Your task to perform on an android device: change text size in settings app Image 0: 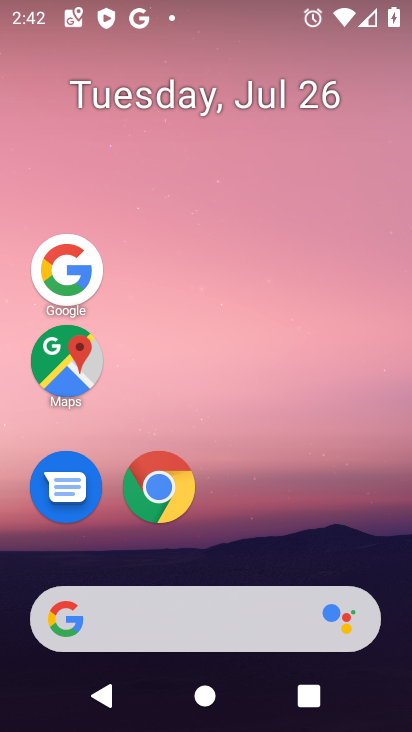
Step 0: drag from (203, 645) to (202, 119)
Your task to perform on an android device: change text size in settings app Image 1: 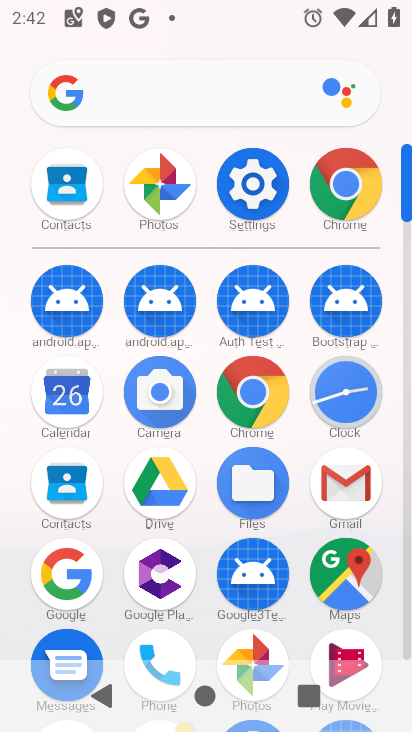
Step 1: click (253, 195)
Your task to perform on an android device: change text size in settings app Image 2: 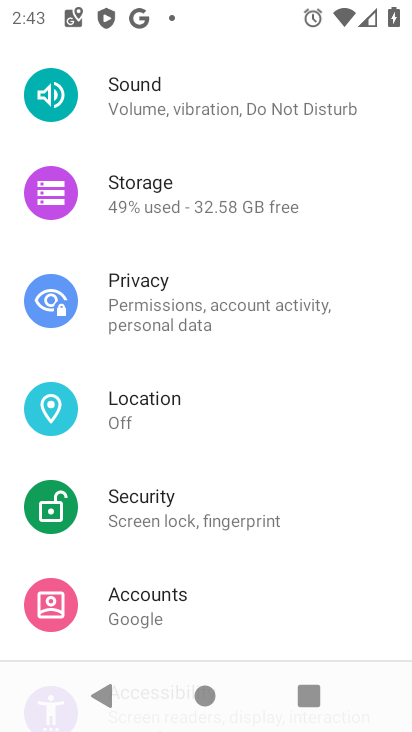
Step 2: drag from (181, 235) to (206, 523)
Your task to perform on an android device: change text size in settings app Image 3: 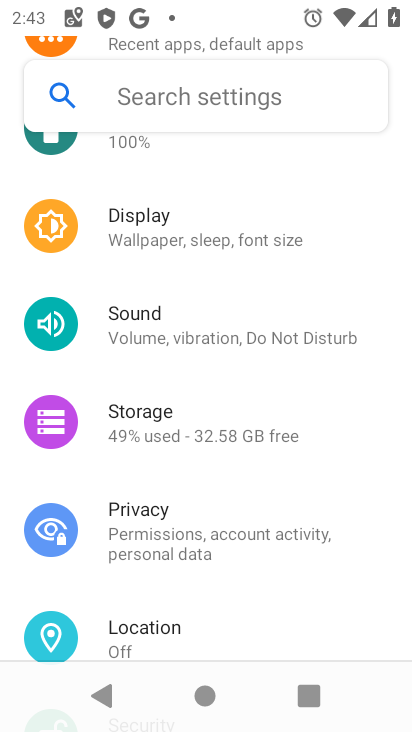
Step 3: drag from (168, 302) to (168, 670)
Your task to perform on an android device: change text size in settings app Image 4: 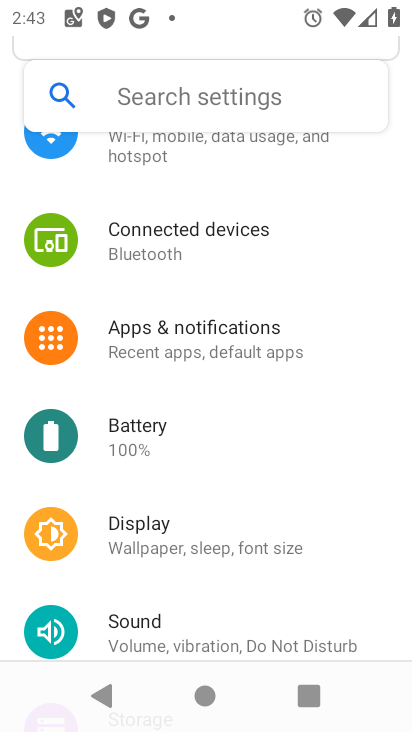
Step 4: click (158, 549)
Your task to perform on an android device: change text size in settings app Image 5: 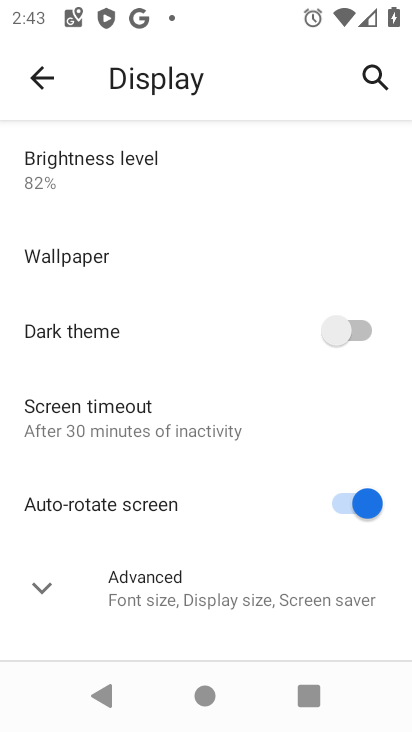
Step 5: click (125, 564)
Your task to perform on an android device: change text size in settings app Image 6: 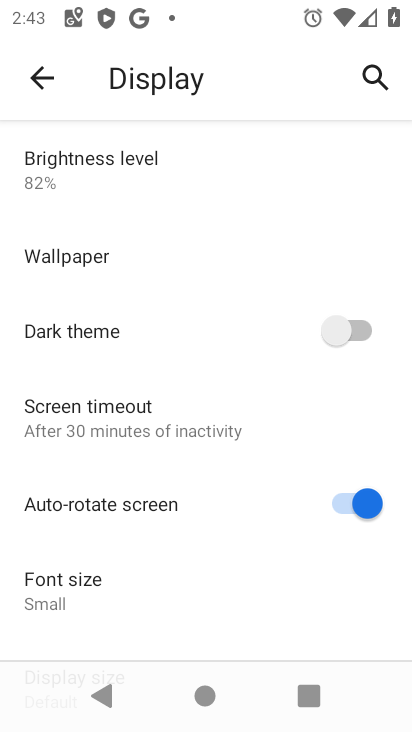
Step 6: drag from (165, 554) to (166, 417)
Your task to perform on an android device: change text size in settings app Image 7: 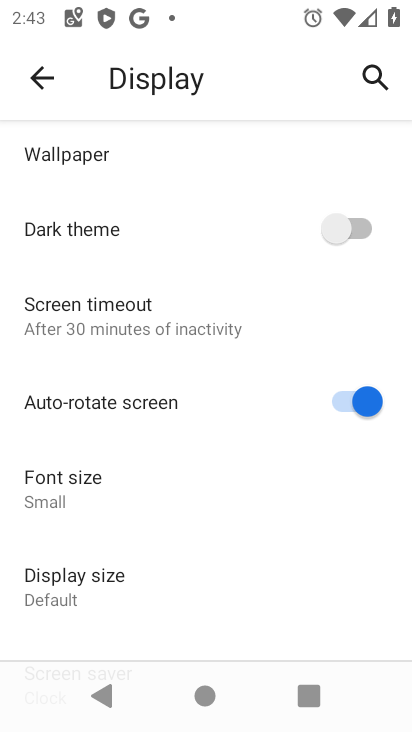
Step 7: click (86, 488)
Your task to perform on an android device: change text size in settings app Image 8: 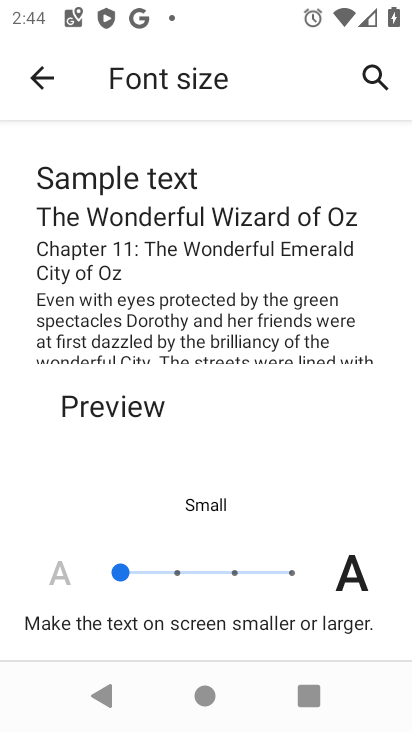
Step 8: click (178, 574)
Your task to perform on an android device: change text size in settings app Image 9: 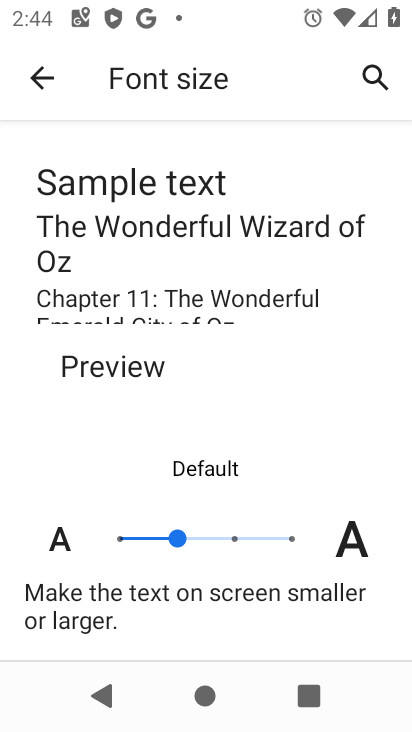
Step 9: task complete